Your task to perform on an android device: open a new tab in the chrome app Image 0: 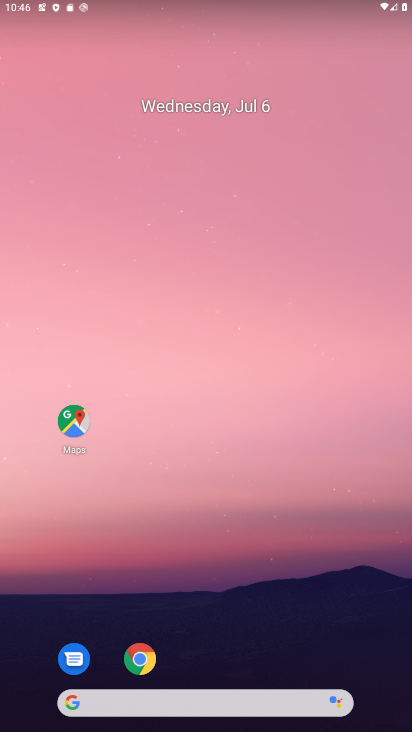
Step 0: click (139, 664)
Your task to perform on an android device: open a new tab in the chrome app Image 1: 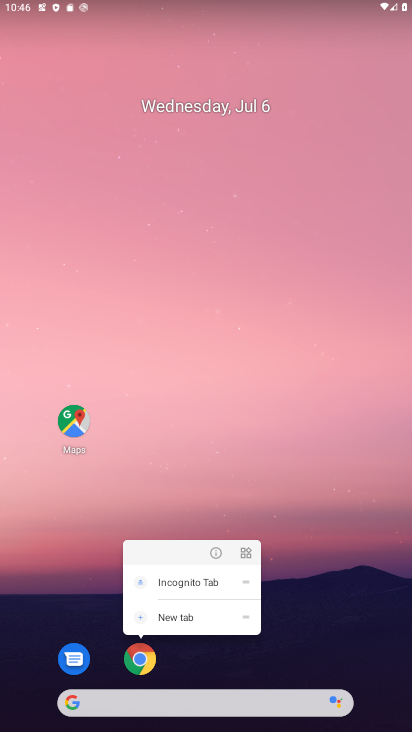
Step 1: click (145, 650)
Your task to perform on an android device: open a new tab in the chrome app Image 2: 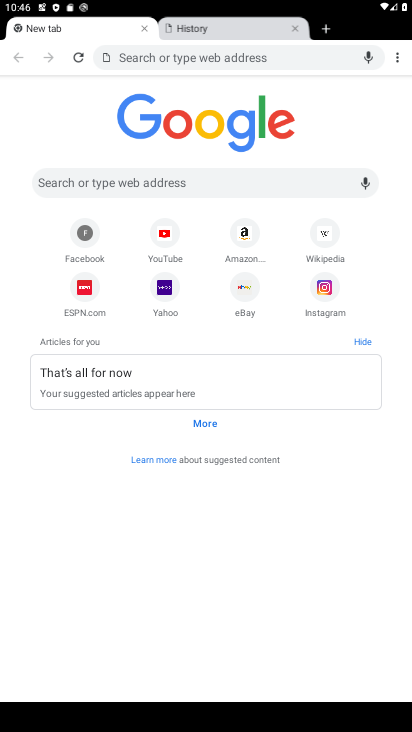
Step 2: click (81, 28)
Your task to perform on an android device: open a new tab in the chrome app Image 3: 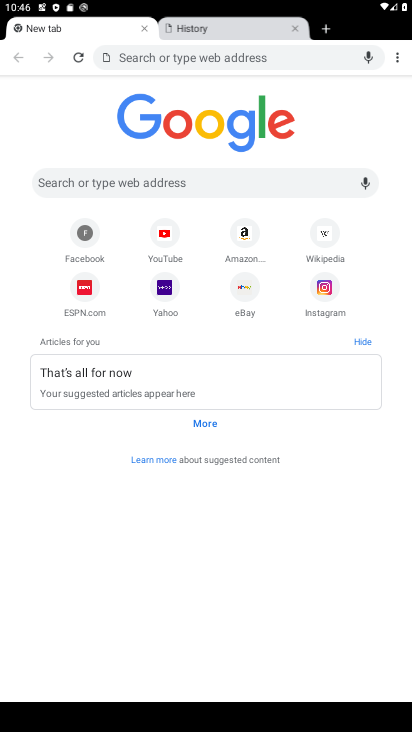
Step 3: task complete